Your task to perform on an android device: Open calendar and show me the second week of next month Image 0: 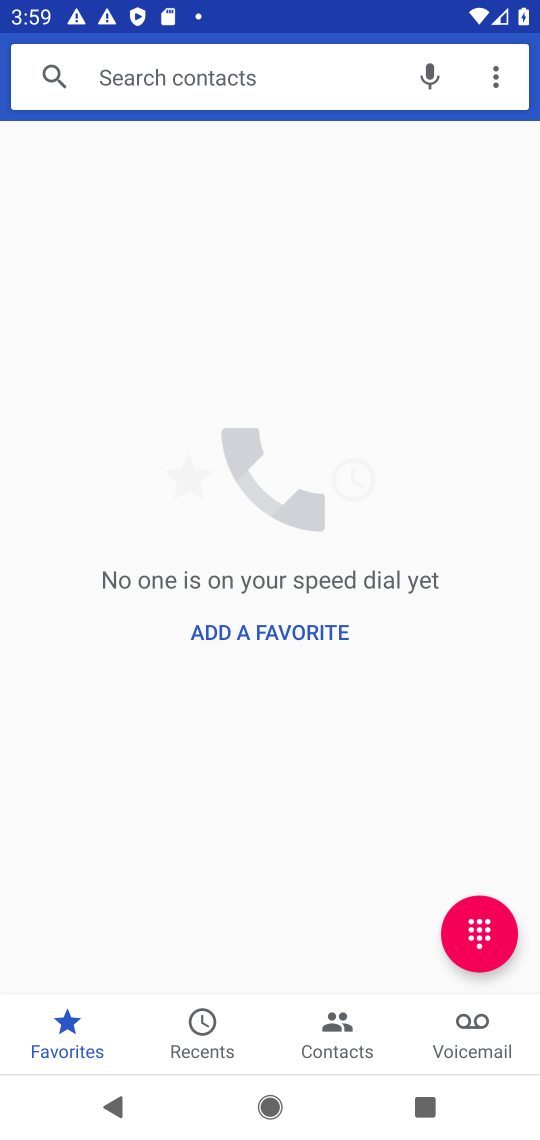
Step 0: press home button
Your task to perform on an android device: Open calendar and show me the second week of next month Image 1: 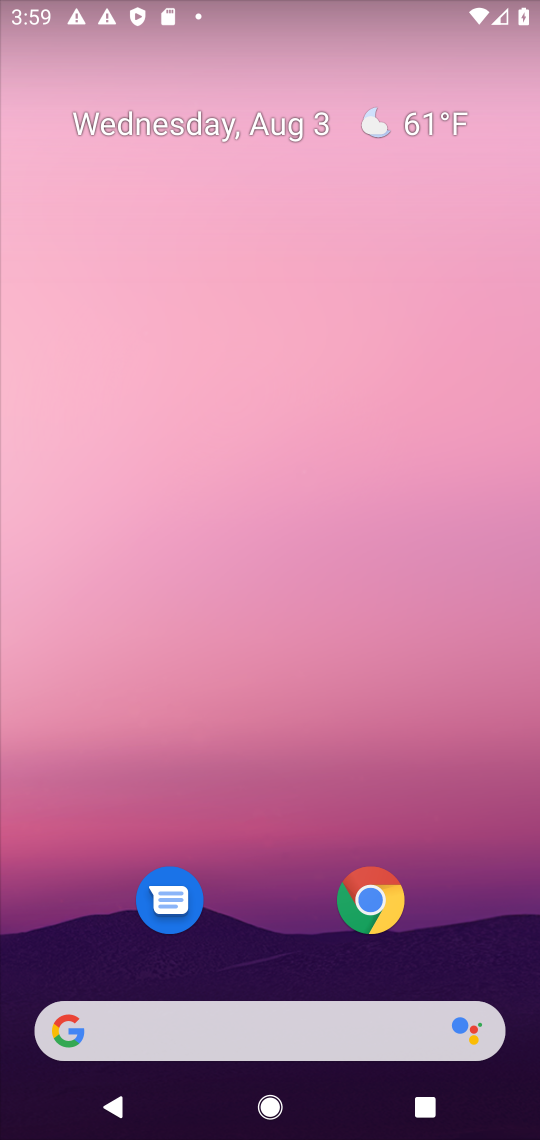
Step 1: drag from (510, 746) to (450, 99)
Your task to perform on an android device: Open calendar and show me the second week of next month Image 2: 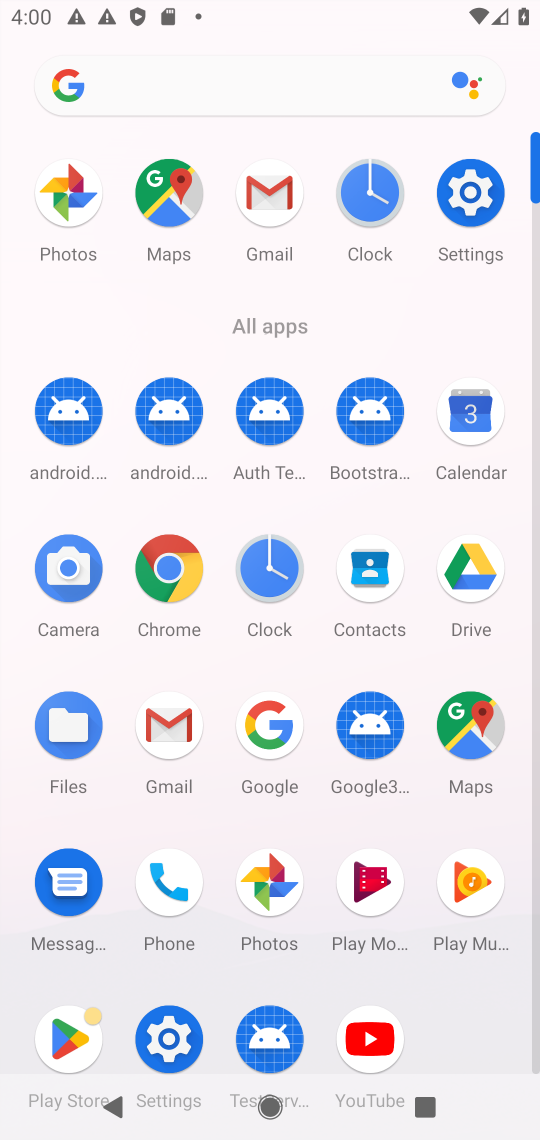
Step 2: click (463, 393)
Your task to perform on an android device: Open calendar and show me the second week of next month Image 3: 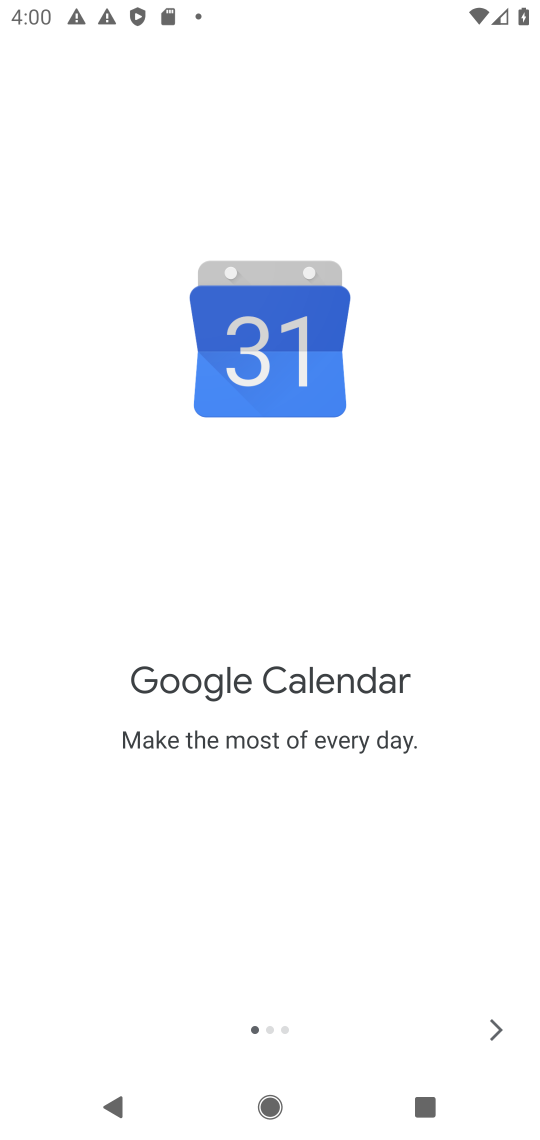
Step 3: click (489, 1030)
Your task to perform on an android device: Open calendar and show me the second week of next month Image 4: 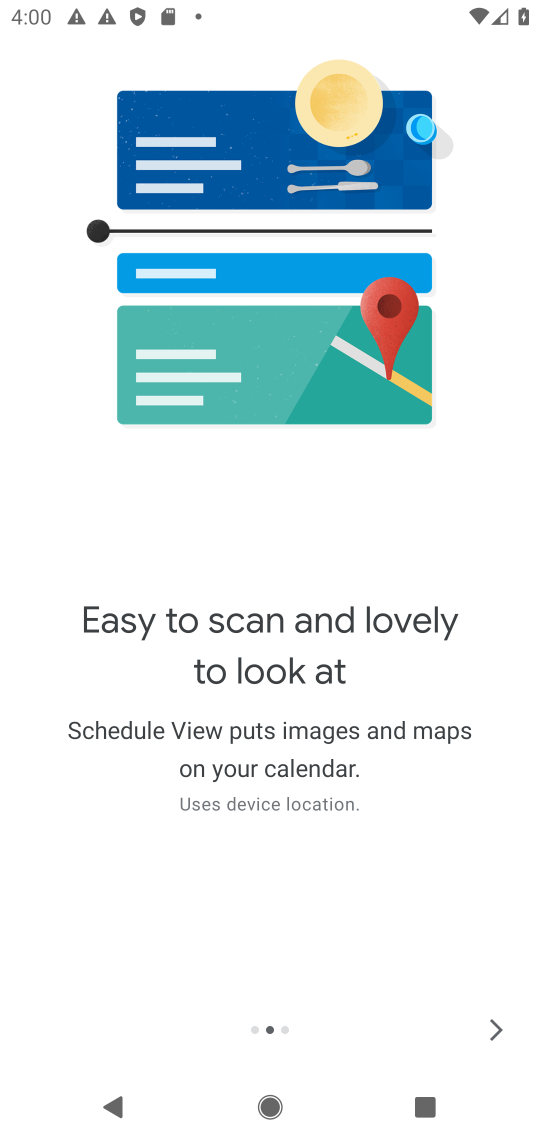
Step 4: click (489, 1030)
Your task to perform on an android device: Open calendar and show me the second week of next month Image 5: 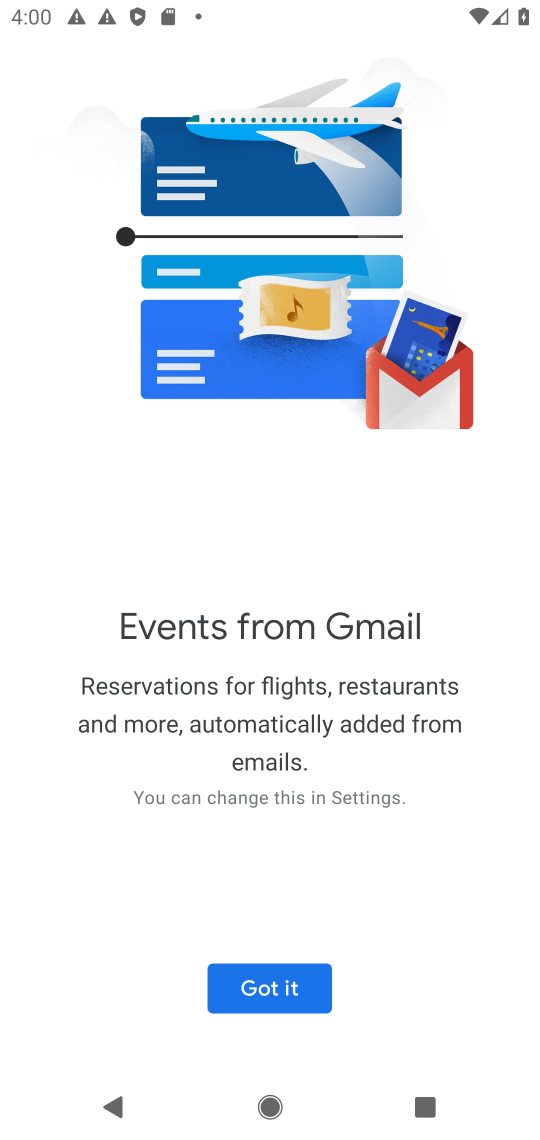
Step 5: click (284, 982)
Your task to perform on an android device: Open calendar and show me the second week of next month Image 6: 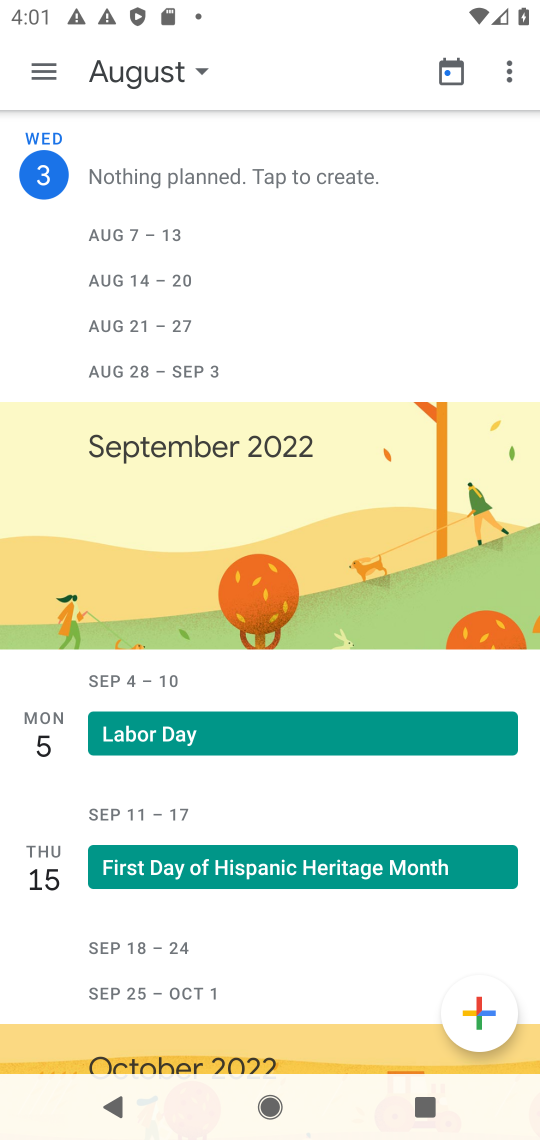
Step 6: click (40, 85)
Your task to perform on an android device: Open calendar and show me the second week of next month Image 7: 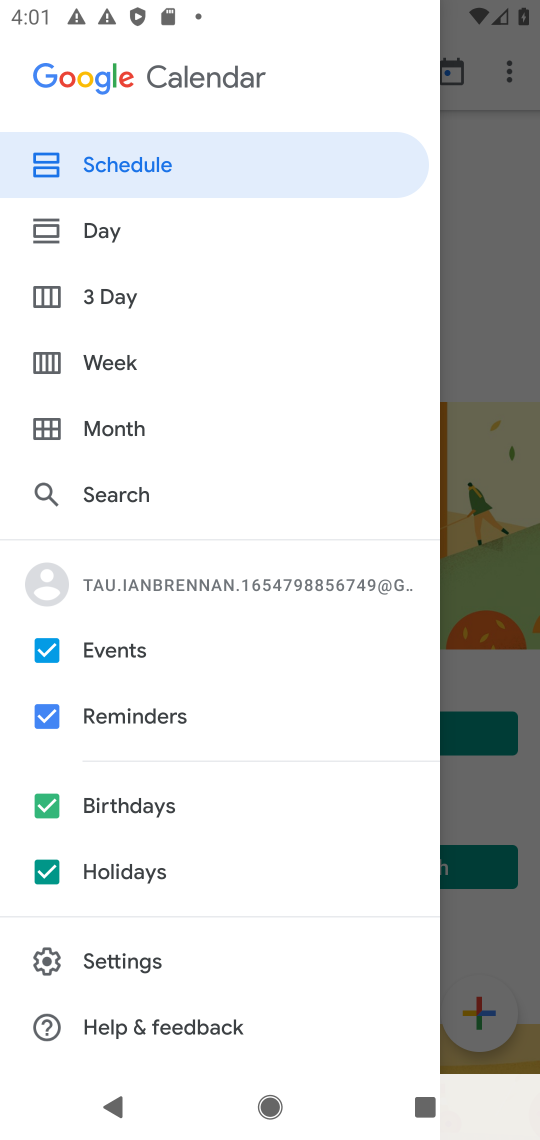
Step 7: click (125, 356)
Your task to perform on an android device: Open calendar and show me the second week of next month Image 8: 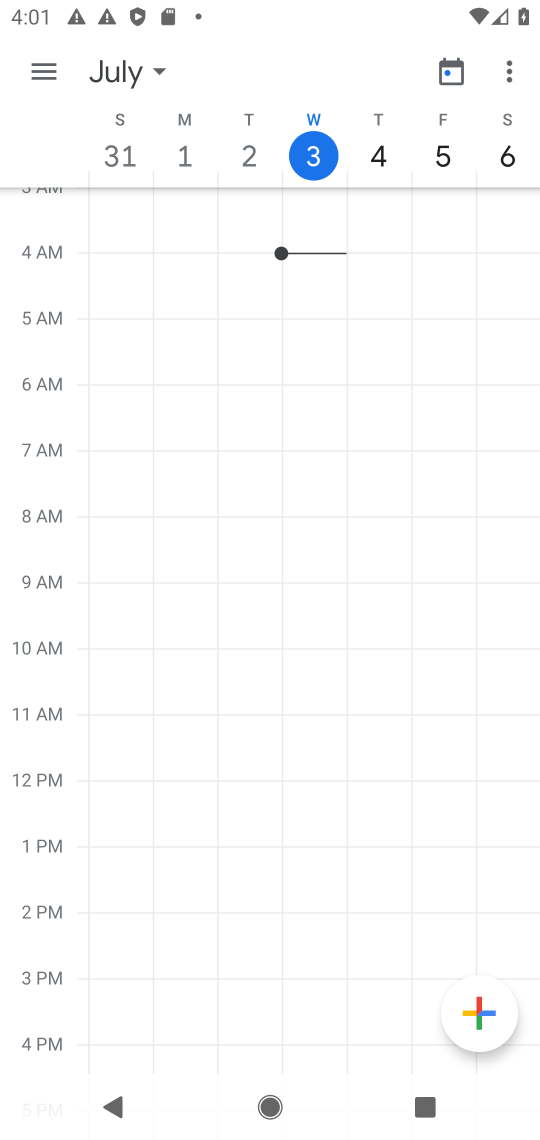
Step 8: click (163, 62)
Your task to perform on an android device: Open calendar and show me the second week of next month Image 9: 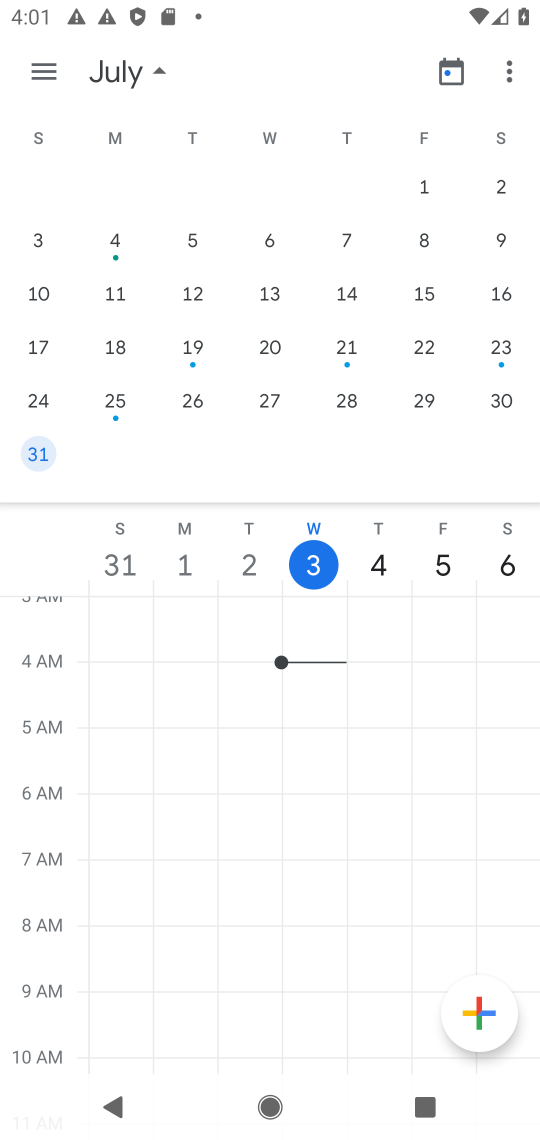
Step 9: drag from (401, 350) to (46, 287)
Your task to perform on an android device: Open calendar and show me the second week of next month Image 10: 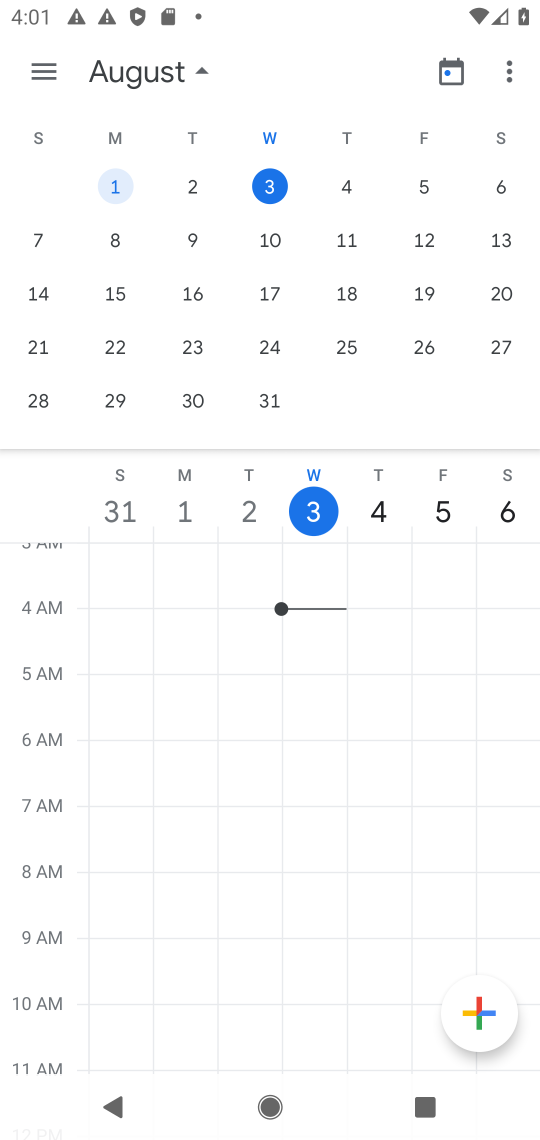
Step 10: drag from (473, 276) to (3, 255)
Your task to perform on an android device: Open calendar and show me the second week of next month Image 11: 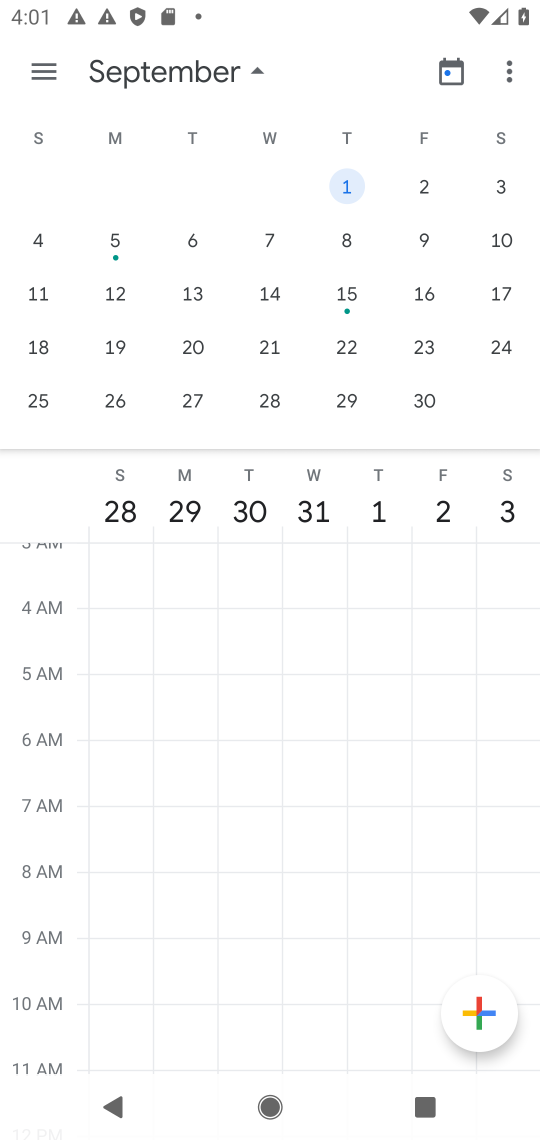
Step 11: click (261, 287)
Your task to perform on an android device: Open calendar and show me the second week of next month Image 12: 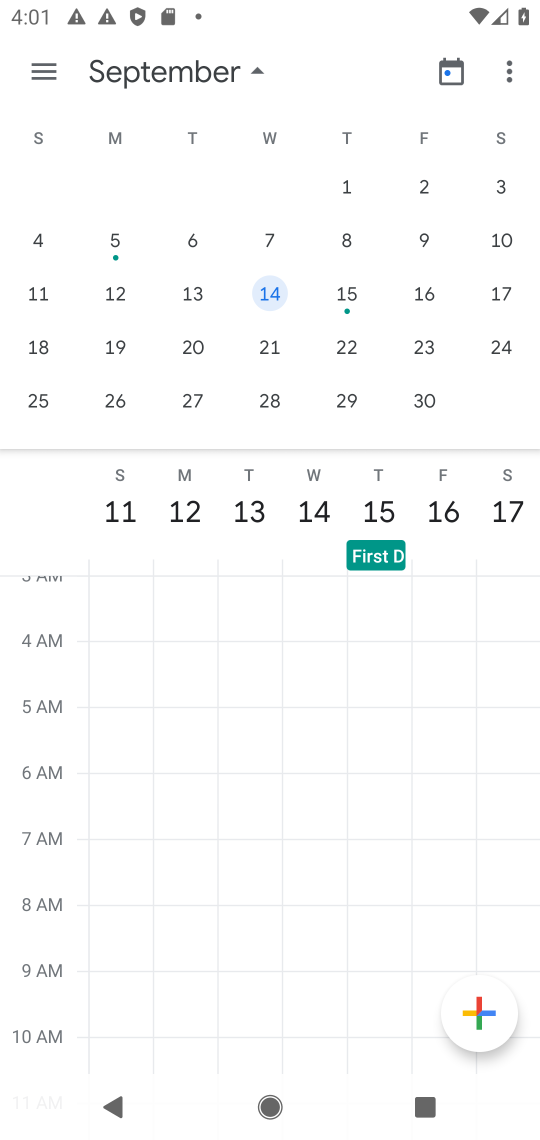
Step 12: task complete